Your task to perform on an android device: Search for flights from Barcelona to Mexico city Image 0: 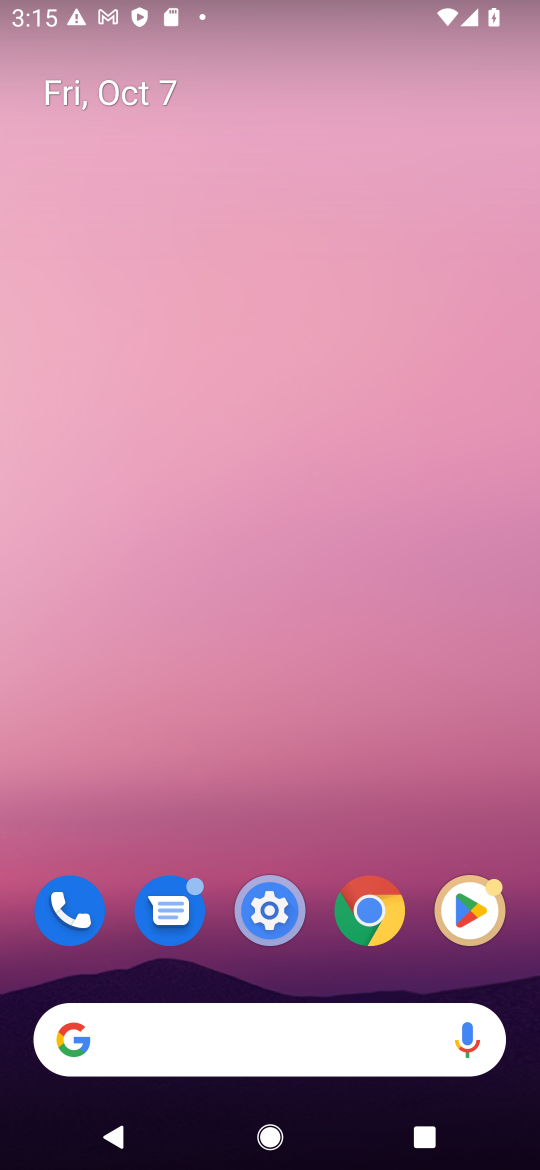
Step 0: click (214, 1045)
Your task to perform on an android device: Search for flights from Barcelona to Mexico city Image 1: 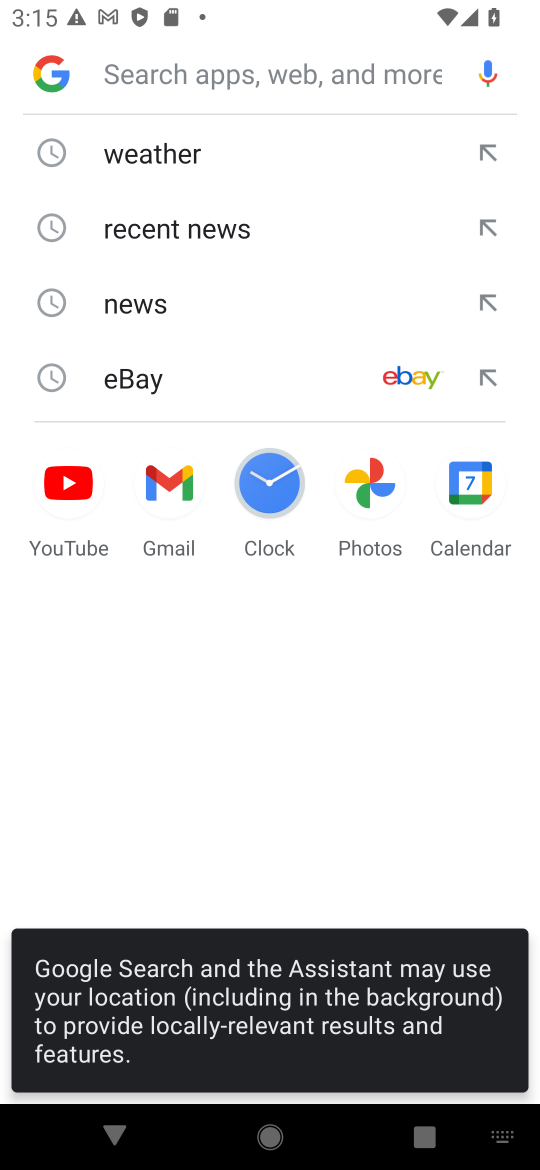
Step 1: type "flights from Barcelona to Mexico city"
Your task to perform on an android device: Search for flights from Barcelona to Mexico city Image 2: 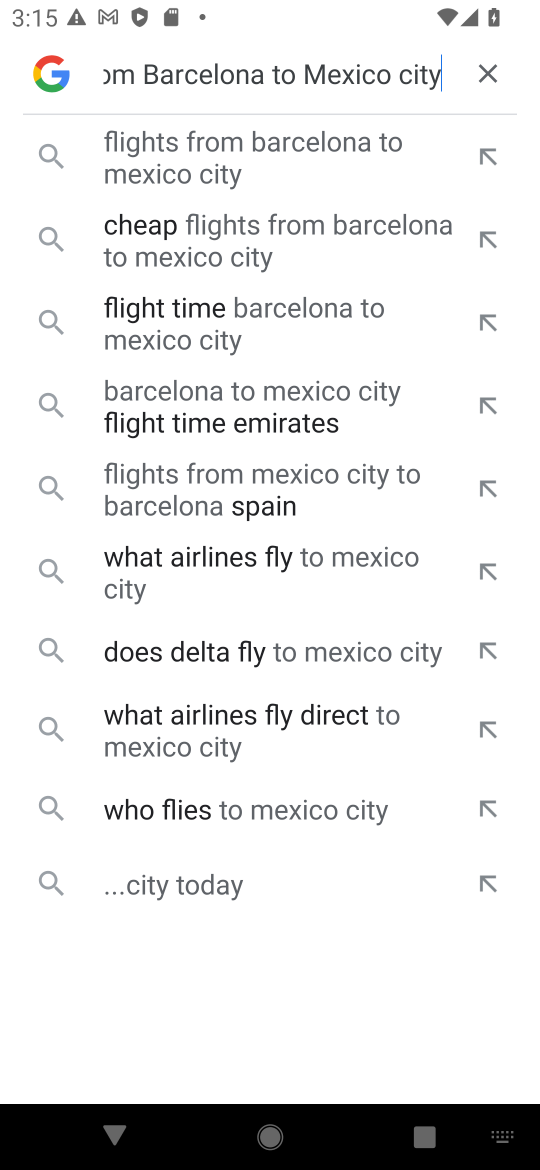
Step 2: click (217, 157)
Your task to perform on an android device: Search for flights from Barcelona to Mexico city Image 3: 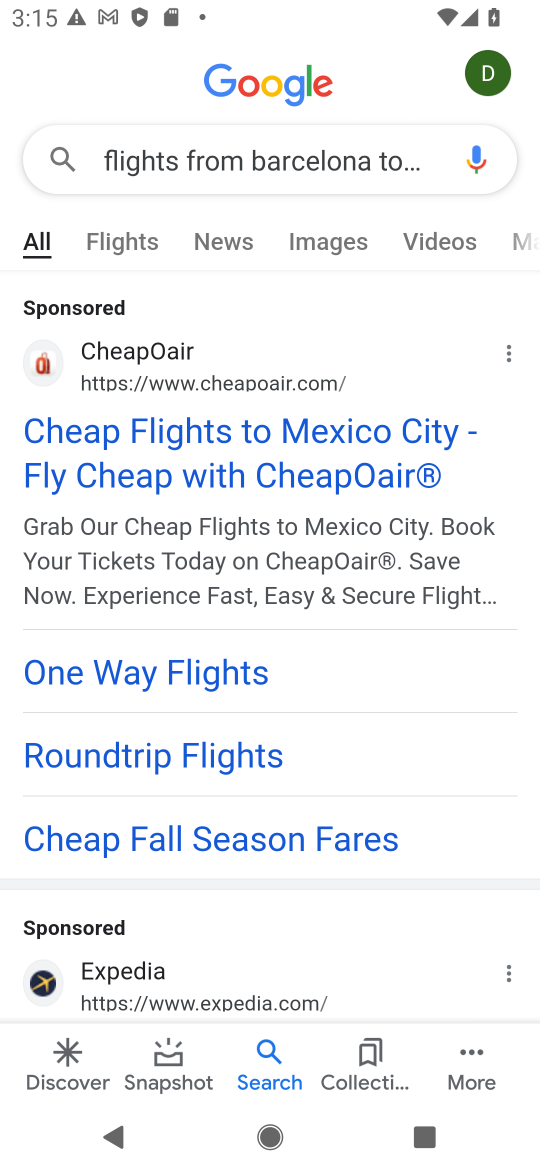
Step 3: drag from (291, 686) to (303, 385)
Your task to perform on an android device: Search for flights from Barcelona to Mexico city Image 4: 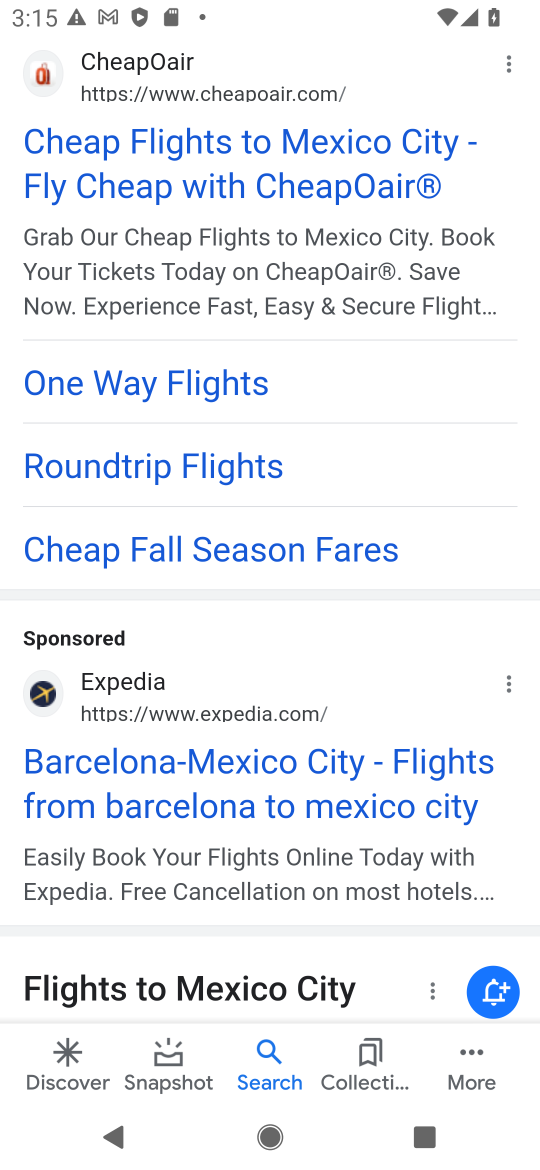
Step 4: click (160, 811)
Your task to perform on an android device: Search for flights from Barcelona to Mexico city Image 5: 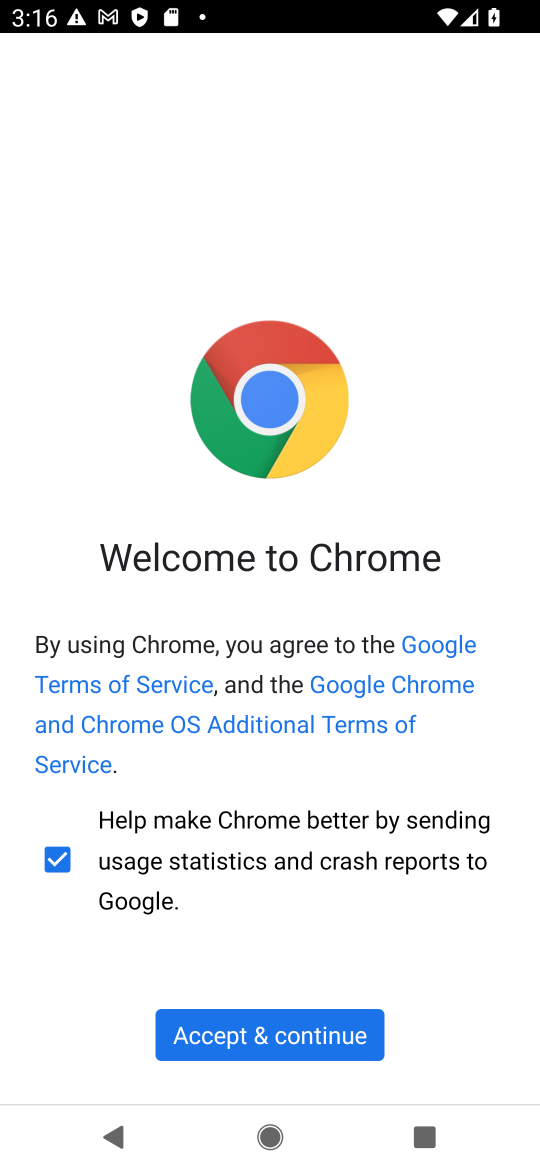
Step 5: click (224, 1047)
Your task to perform on an android device: Search for flights from Barcelona to Mexico city Image 6: 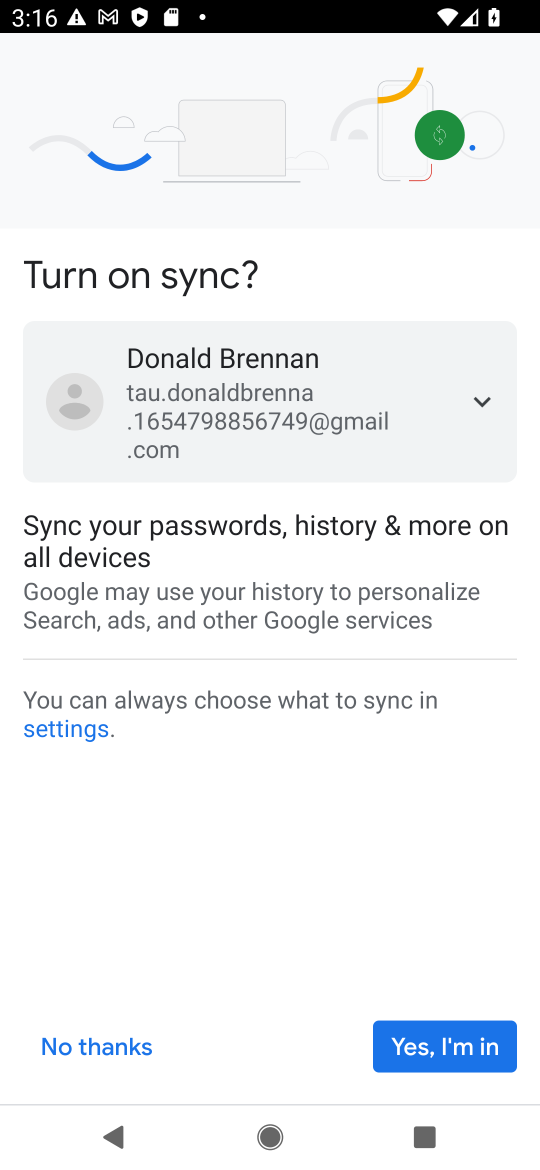
Step 6: click (421, 1032)
Your task to perform on an android device: Search for flights from Barcelona to Mexico city Image 7: 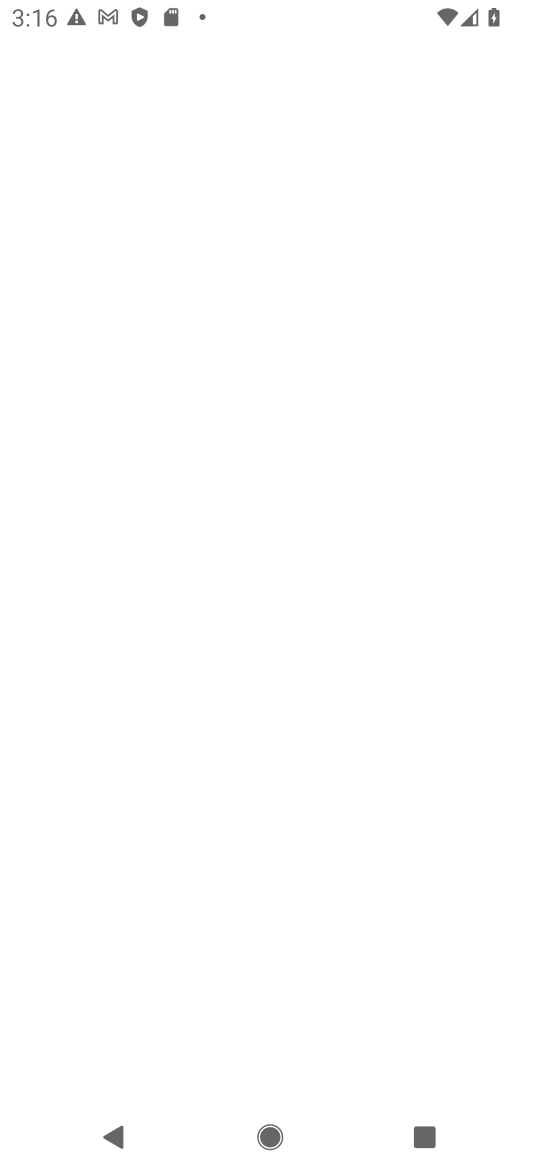
Step 7: click (421, 1032)
Your task to perform on an android device: Search for flights from Barcelona to Mexico city Image 8: 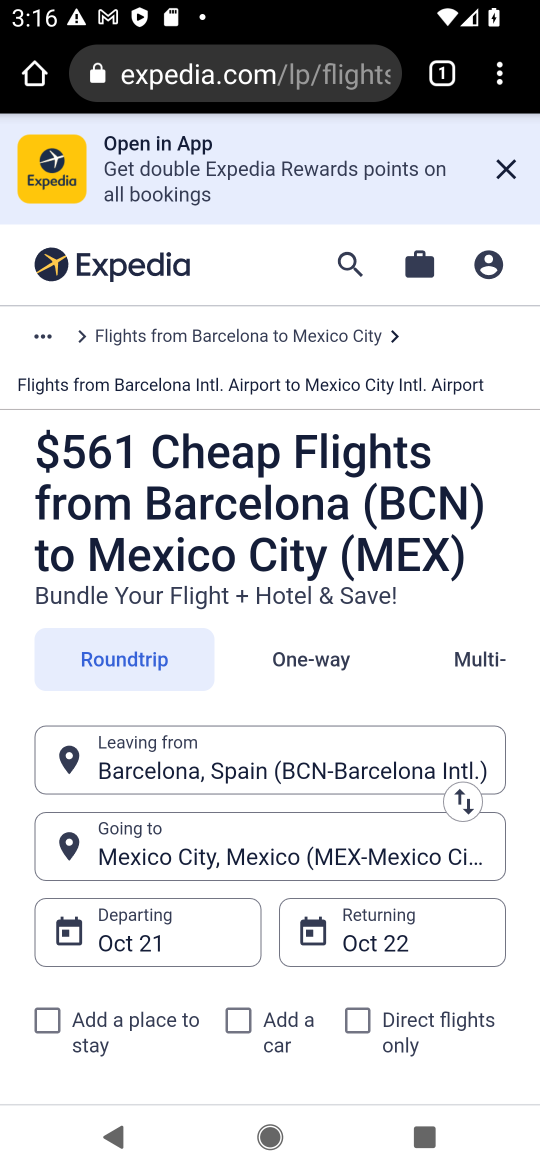
Step 8: task complete